Your task to perform on an android device: open chrome privacy settings Image 0: 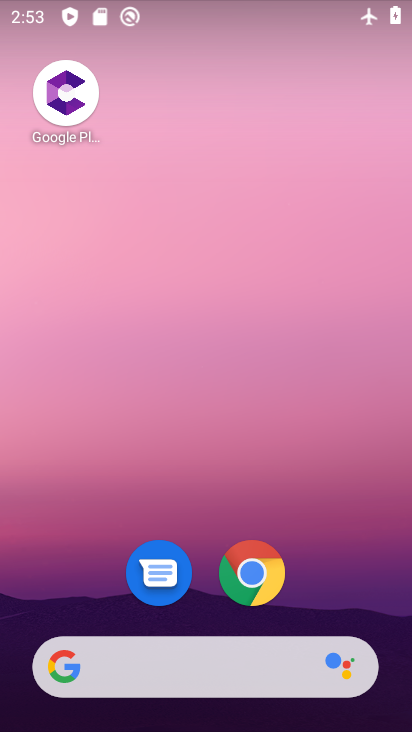
Step 0: click (268, 591)
Your task to perform on an android device: open chrome privacy settings Image 1: 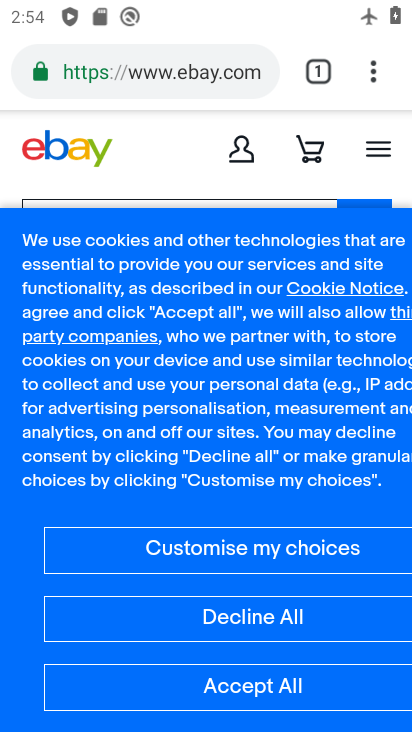
Step 1: click (373, 76)
Your task to perform on an android device: open chrome privacy settings Image 2: 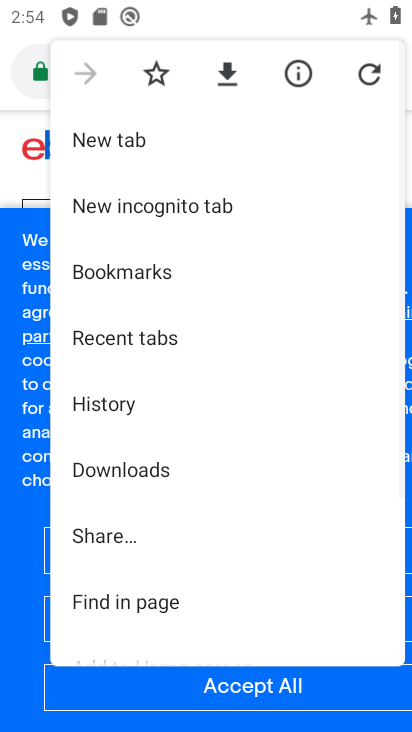
Step 2: drag from (196, 585) to (179, 155)
Your task to perform on an android device: open chrome privacy settings Image 3: 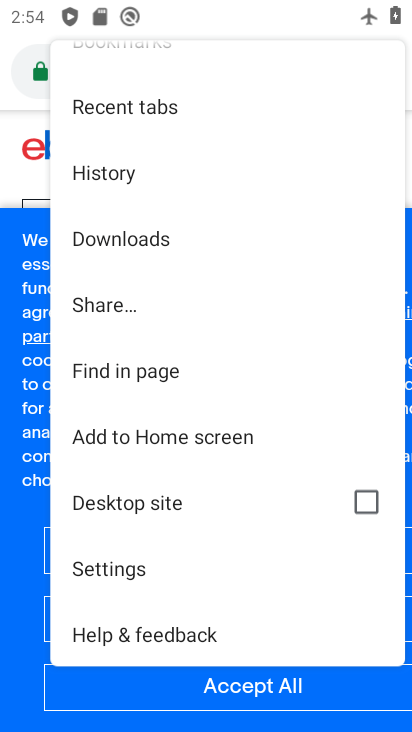
Step 3: click (125, 576)
Your task to perform on an android device: open chrome privacy settings Image 4: 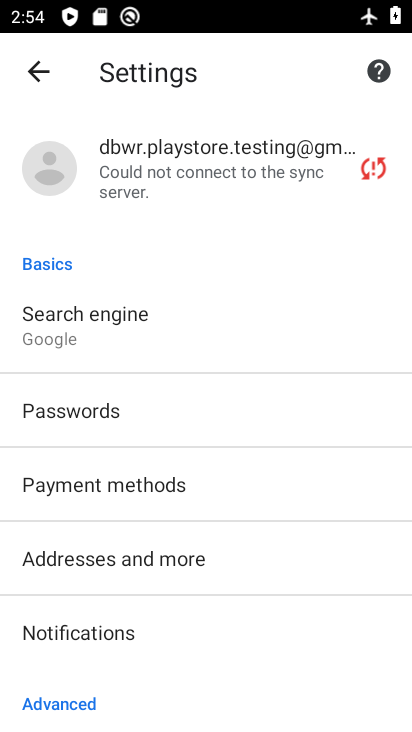
Step 4: drag from (152, 624) to (140, 267)
Your task to perform on an android device: open chrome privacy settings Image 5: 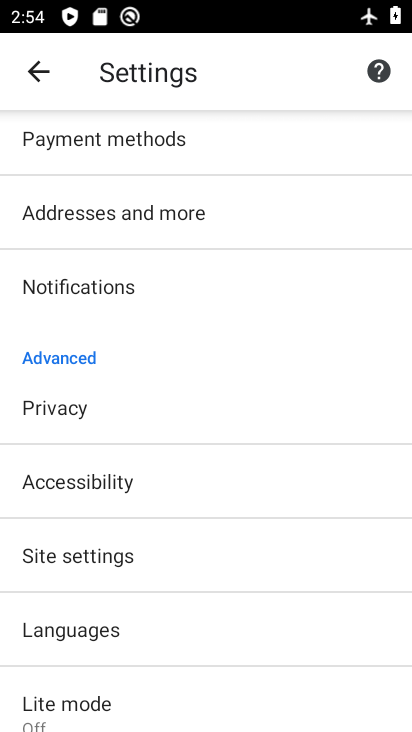
Step 5: click (98, 418)
Your task to perform on an android device: open chrome privacy settings Image 6: 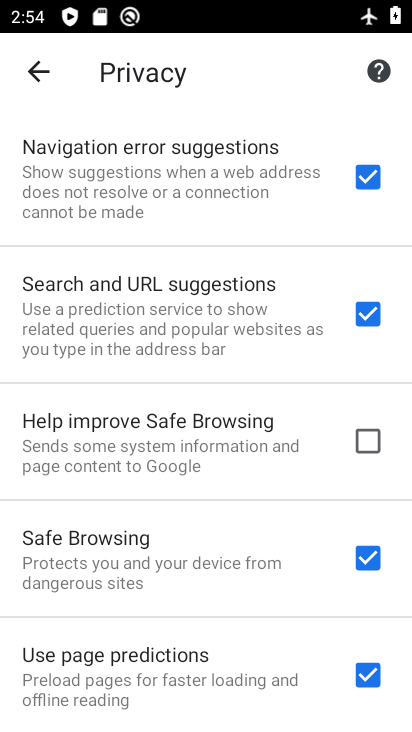
Step 6: task complete